Your task to perform on an android device: make emails show in primary in the gmail app Image 0: 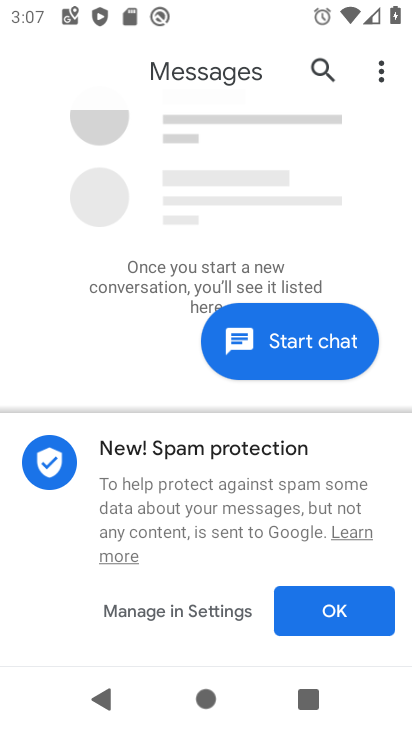
Step 0: press home button
Your task to perform on an android device: make emails show in primary in the gmail app Image 1: 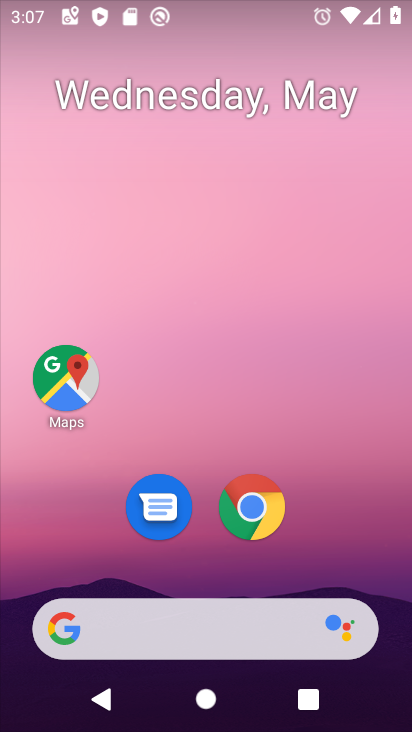
Step 1: drag from (209, 549) to (236, 88)
Your task to perform on an android device: make emails show in primary in the gmail app Image 2: 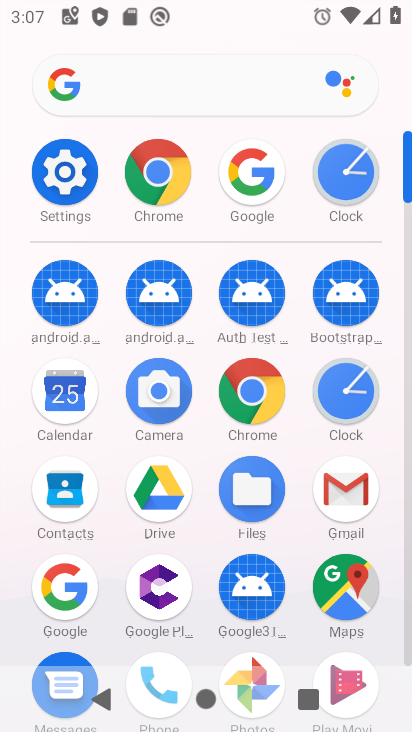
Step 2: click (334, 475)
Your task to perform on an android device: make emails show in primary in the gmail app Image 3: 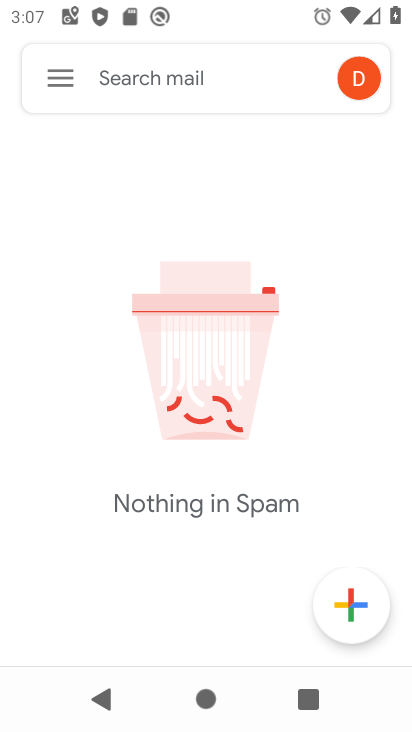
Step 3: click (62, 78)
Your task to perform on an android device: make emails show in primary in the gmail app Image 4: 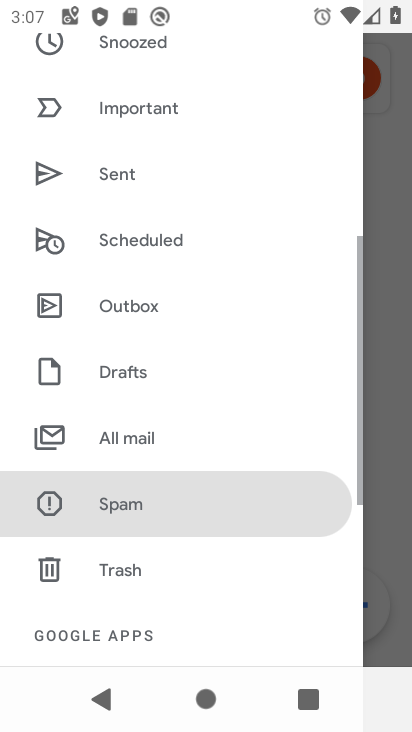
Step 4: drag from (196, 578) to (204, 314)
Your task to perform on an android device: make emails show in primary in the gmail app Image 5: 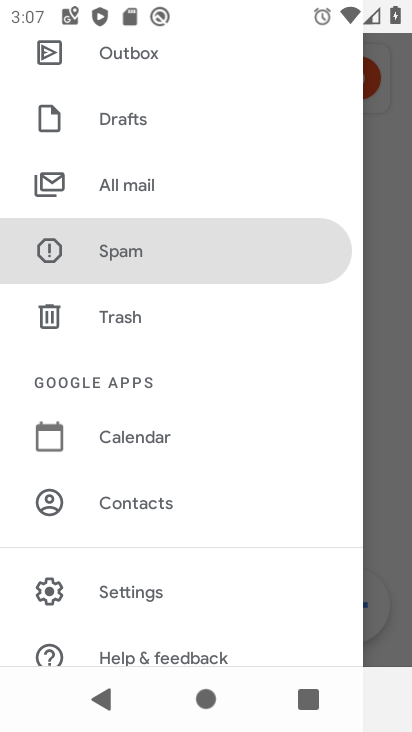
Step 5: click (149, 581)
Your task to perform on an android device: make emails show in primary in the gmail app Image 6: 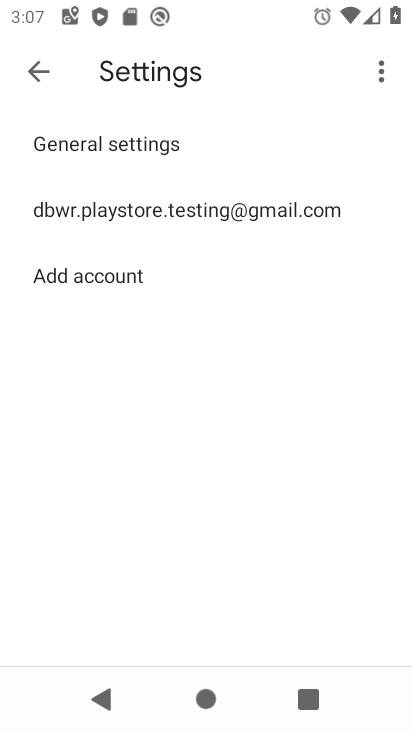
Step 6: click (147, 213)
Your task to perform on an android device: make emails show in primary in the gmail app Image 7: 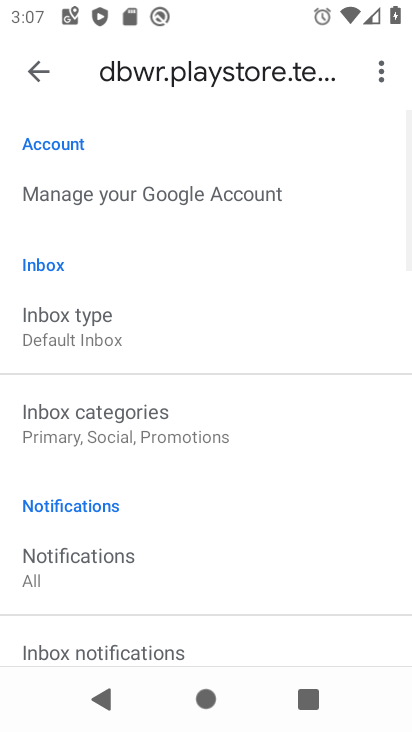
Step 7: click (117, 432)
Your task to perform on an android device: make emails show in primary in the gmail app Image 8: 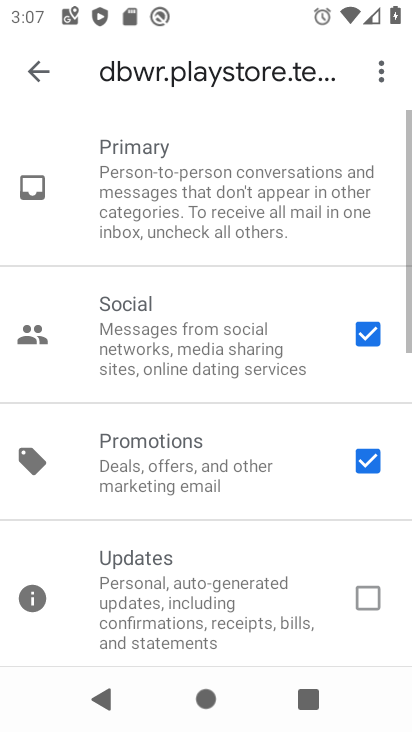
Step 8: click (368, 329)
Your task to perform on an android device: make emails show in primary in the gmail app Image 9: 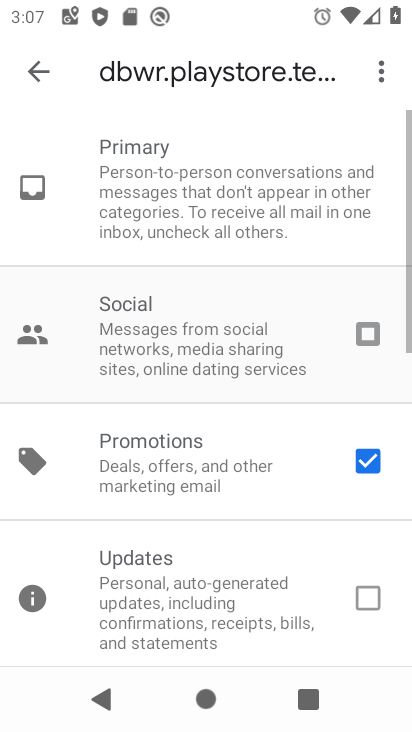
Step 9: click (362, 466)
Your task to perform on an android device: make emails show in primary in the gmail app Image 10: 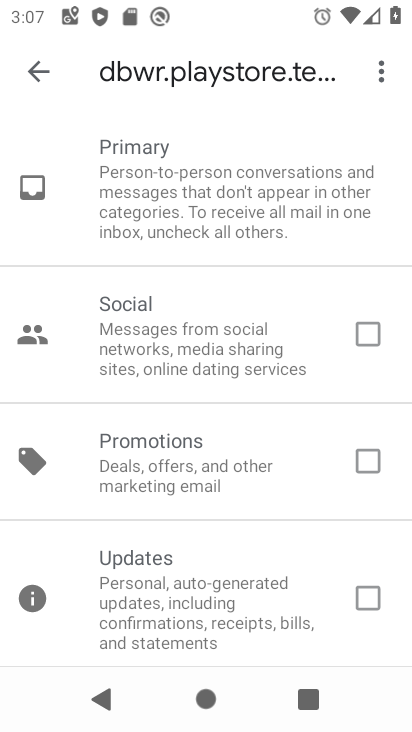
Step 10: task complete